Your task to perform on an android device: Open settings on Google Maps Image 0: 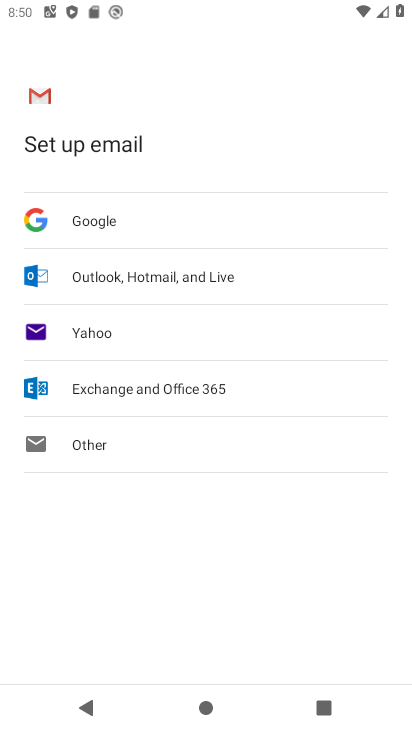
Step 0: press home button
Your task to perform on an android device: Open settings on Google Maps Image 1: 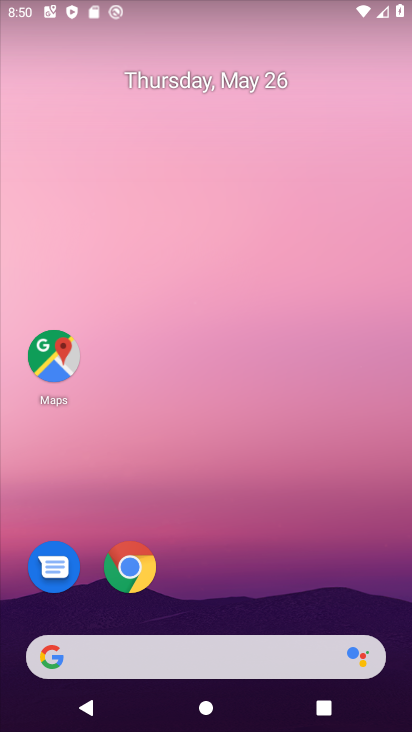
Step 1: click (55, 369)
Your task to perform on an android device: Open settings on Google Maps Image 2: 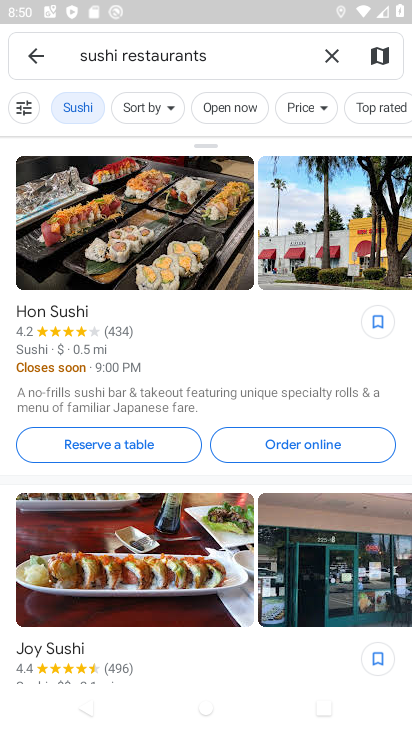
Step 2: click (38, 57)
Your task to perform on an android device: Open settings on Google Maps Image 3: 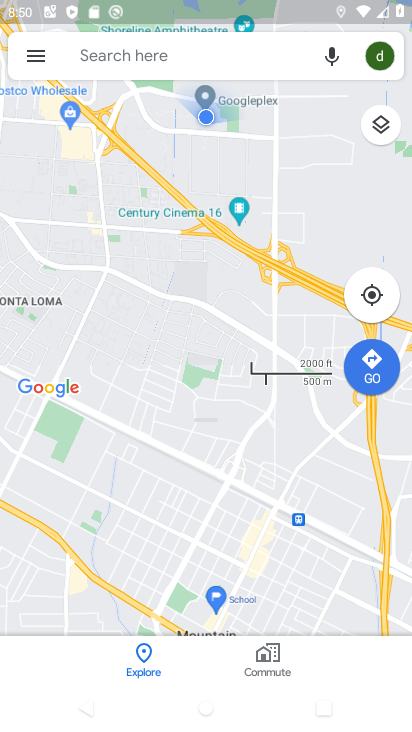
Step 3: click (37, 54)
Your task to perform on an android device: Open settings on Google Maps Image 4: 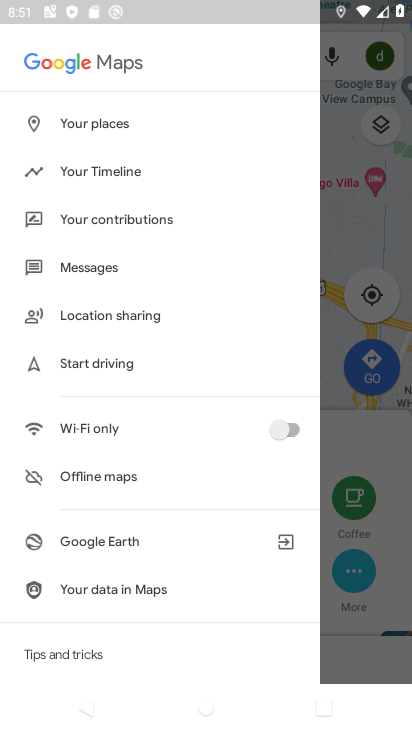
Step 4: drag from (228, 468) to (301, 177)
Your task to perform on an android device: Open settings on Google Maps Image 5: 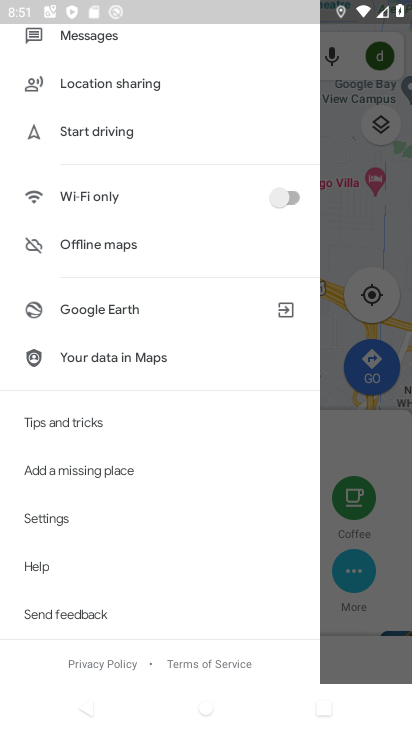
Step 5: click (55, 520)
Your task to perform on an android device: Open settings on Google Maps Image 6: 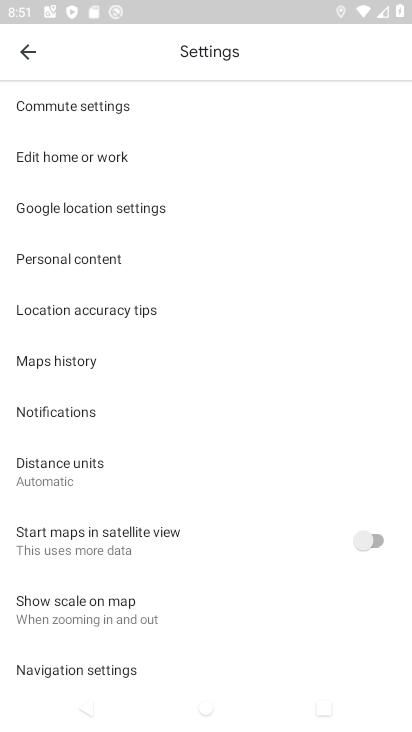
Step 6: task complete